Your task to perform on an android device: clear history in the chrome app Image 0: 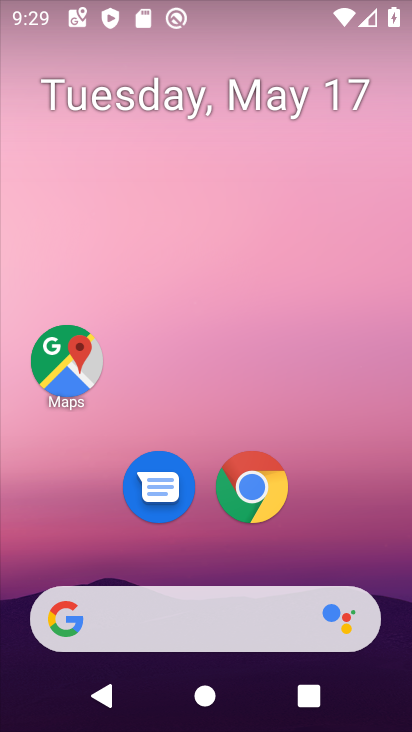
Step 0: press home button
Your task to perform on an android device: clear history in the chrome app Image 1: 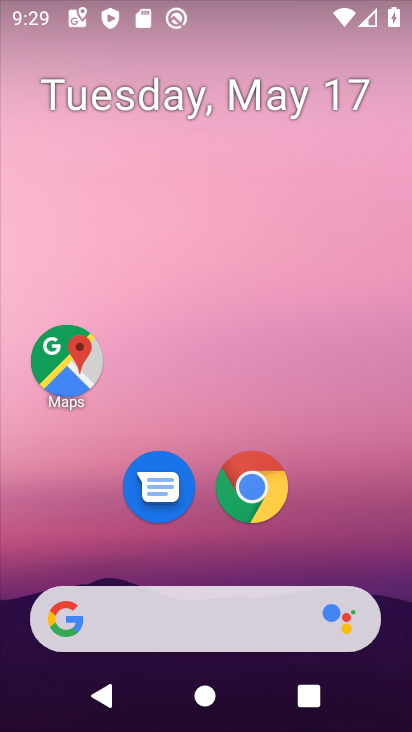
Step 1: drag from (302, 655) to (243, 279)
Your task to perform on an android device: clear history in the chrome app Image 2: 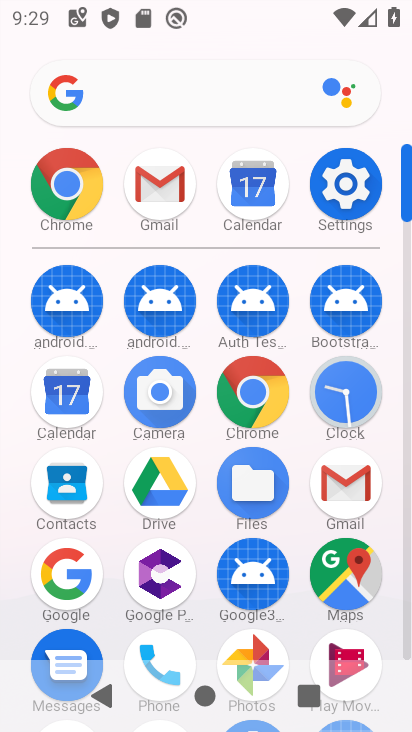
Step 2: click (57, 198)
Your task to perform on an android device: clear history in the chrome app Image 3: 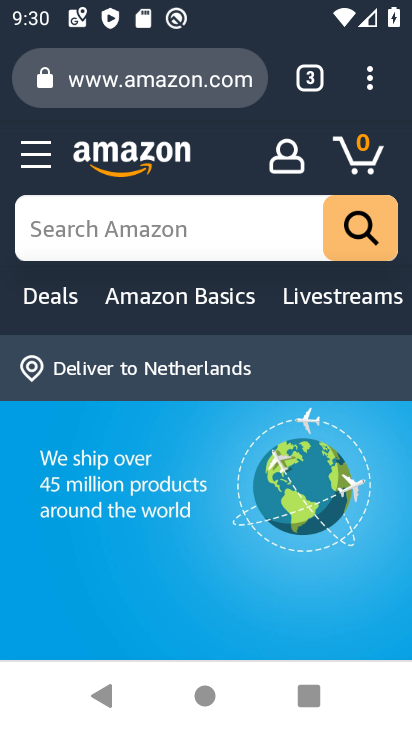
Step 3: click (356, 100)
Your task to perform on an android device: clear history in the chrome app Image 4: 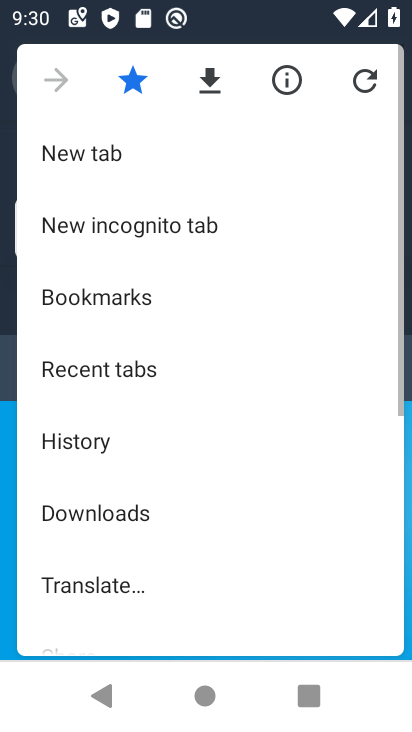
Step 4: drag from (191, 529) to (193, 475)
Your task to perform on an android device: clear history in the chrome app Image 5: 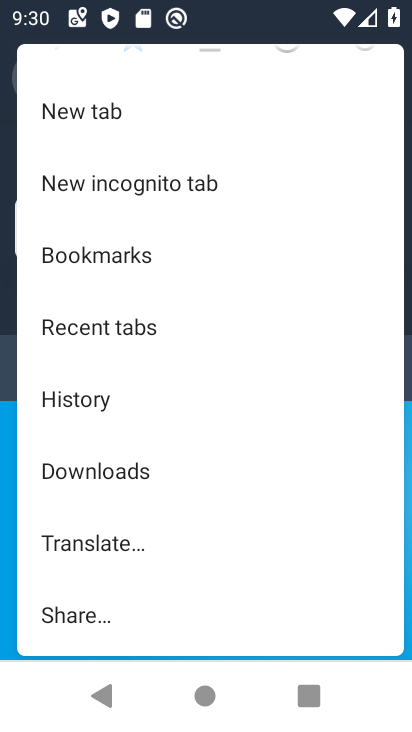
Step 5: click (121, 391)
Your task to perform on an android device: clear history in the chrome app Image 6: 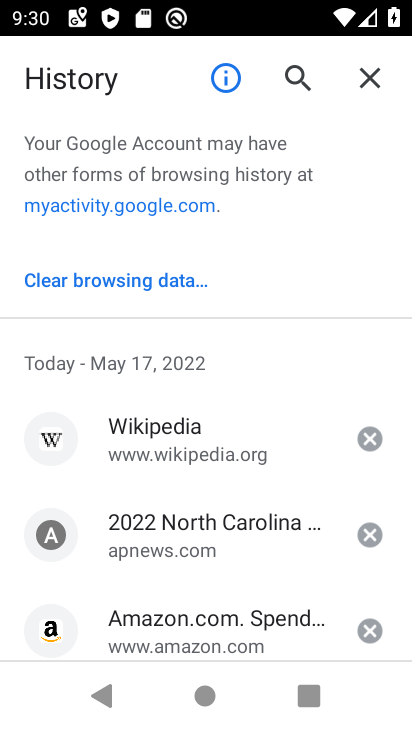
Step 6: click (65, 278)
Your task to perform on an android device: clear history in the chrome app Image 7: 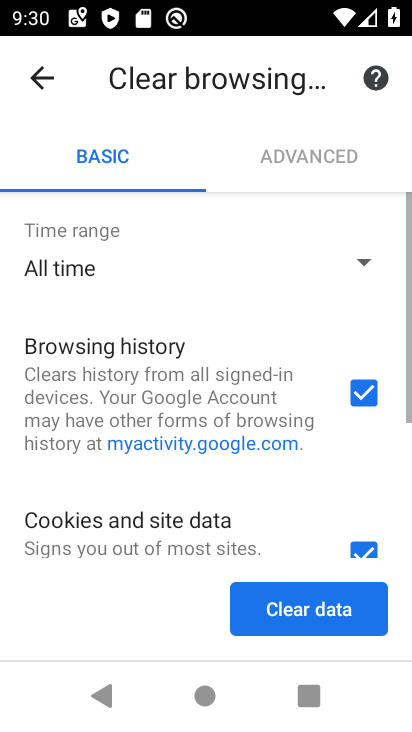
Step 7: click (341, 602)
Your task to perform on an android device: clear history in the chrome app Image 8: 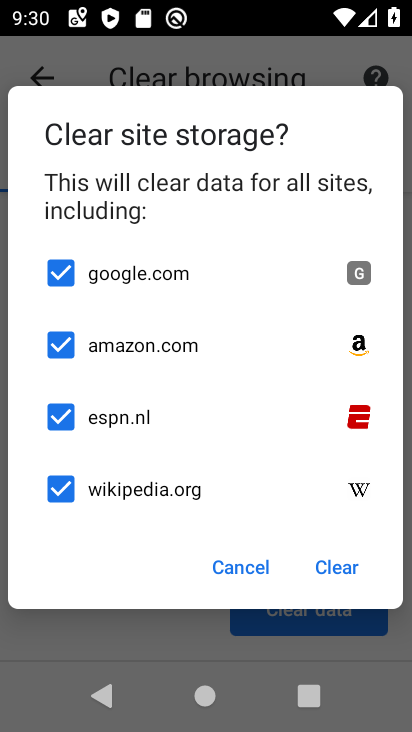
Step 8: click (339, 577)
Your task to perform on an android device: clear history in the chrome app Image 9: 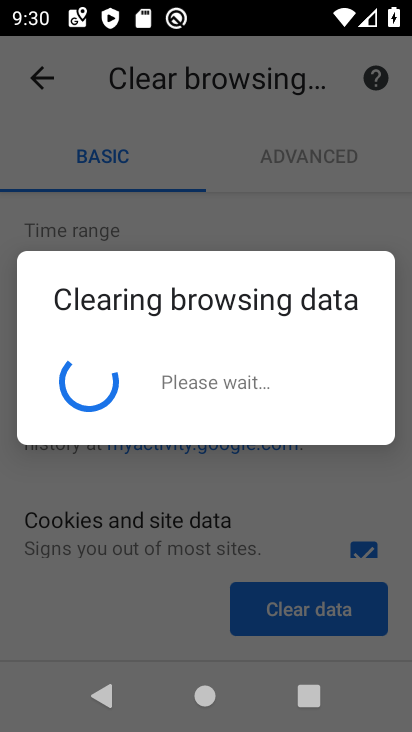
Step 9: task complete